Your task to perform on an android device: turn on javascript in the chrome app Image 0: 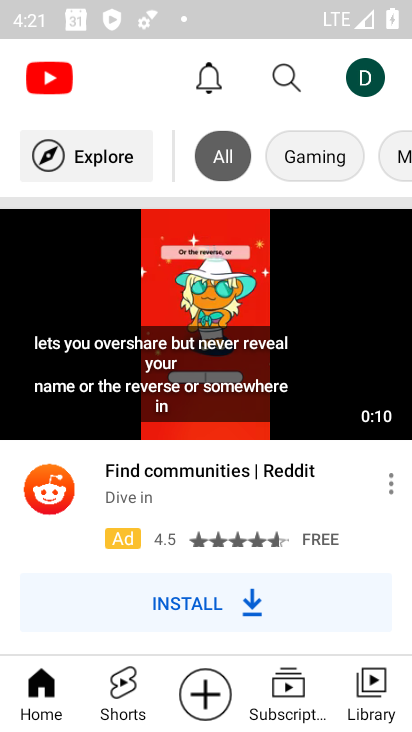
Step 0: press home button
Your task to perform on an android device: turn on javascript in the chrome app Image 1: 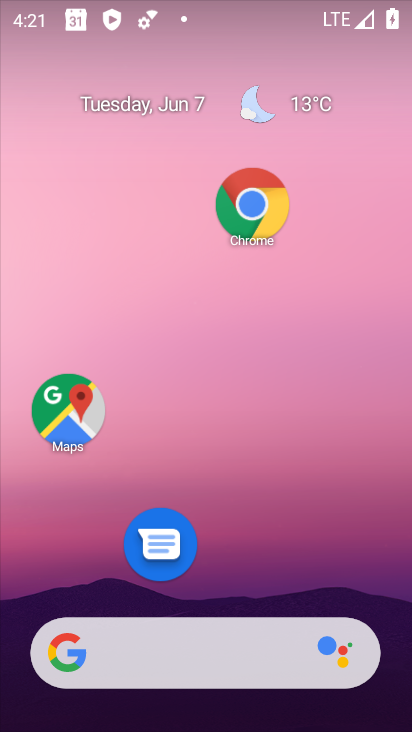
Step 1: click (256, 200)
Your task to perform on an android device: turn on javascript in the chrome app Image 2: 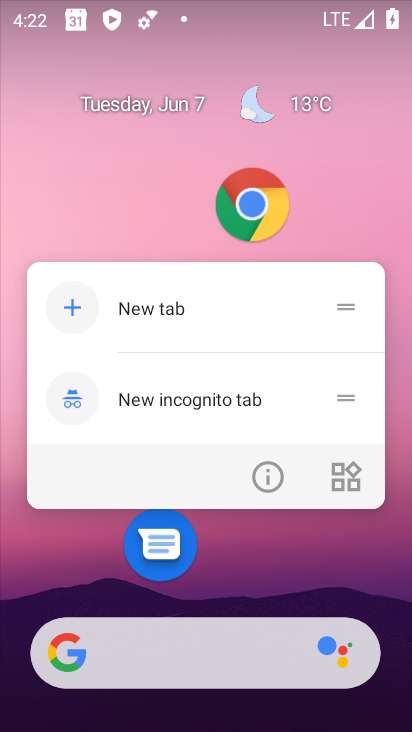
Step 2: click (253, 206)
Your task to perform on an android device: turn on javascript in the chrome app Image 3: 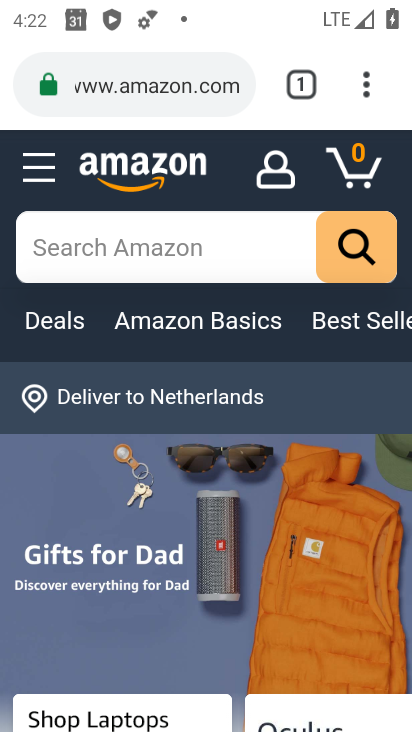
Step 3: click (371, 91)
Your task to perform on an android device: turn on javascript in the chrome app Image 4: 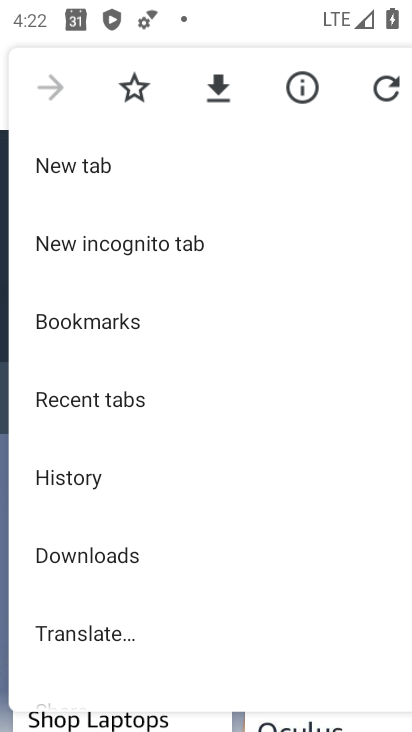
Step 4: drag from (172, 609) to (202, 210)
Your task to perform on an android device: turn on javascript in the chrome app Image 5: 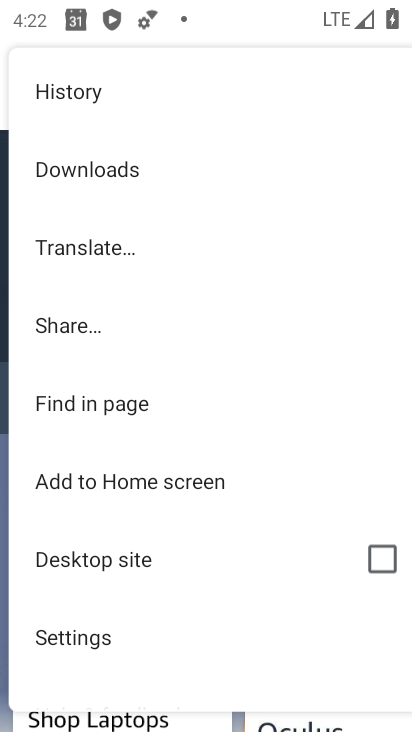
Step 5: click (140, 632)
Your task to perform on an android device: turn on javascript in the chrome app Image 6: 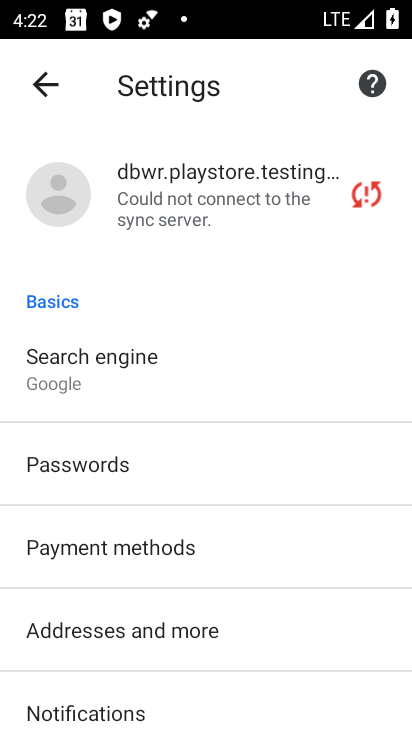
Step 6: drag from (213, 679) to (230, 240)
Your task to perform on an android device: turn on javascript in the chrome app Image 7: 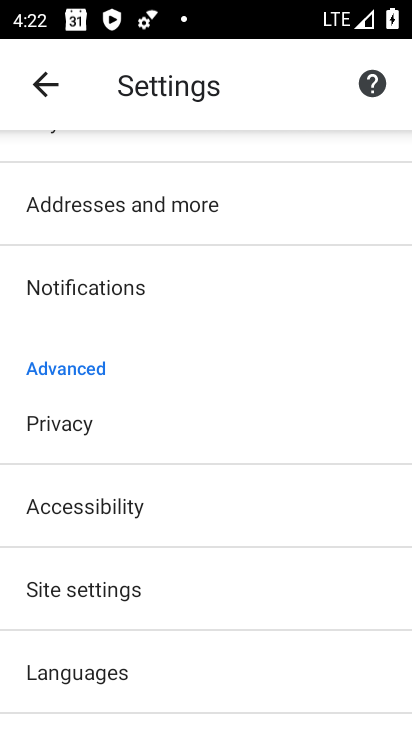
Step 7: click (161, 585)
Your task to perform on an android device: turn on javascript in the chrome app Image 8: 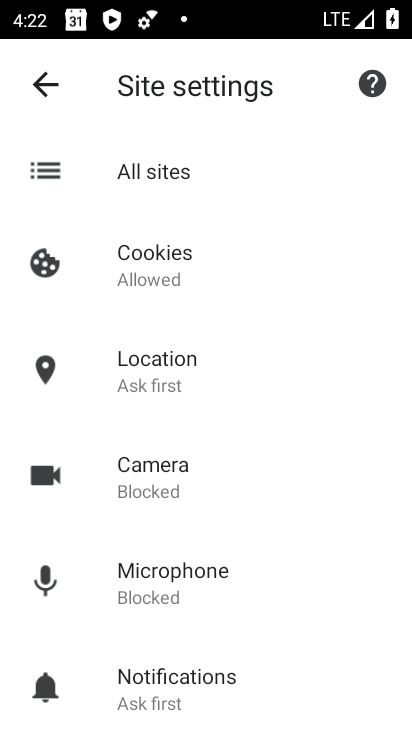
Step 8: drag from (191, 647) to (236, 277)
Your task to perform on an android device: turn on javascript in the chrome app Image 9: 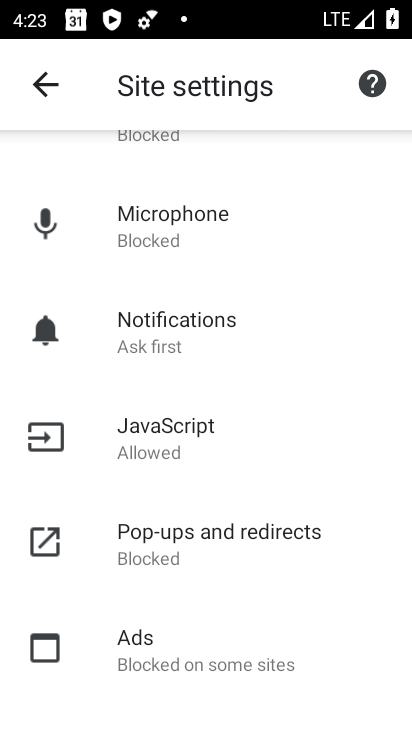
Step 9: click (164, 430)
Your task to perform on an android device: turn on javascript in the chrome app Image 10: 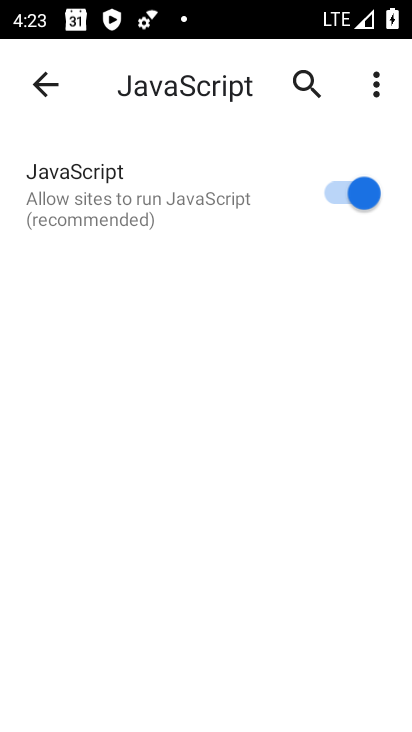
Step 10: task complete